Your task to perform on an android device: What's on my calendar today? Image 0: 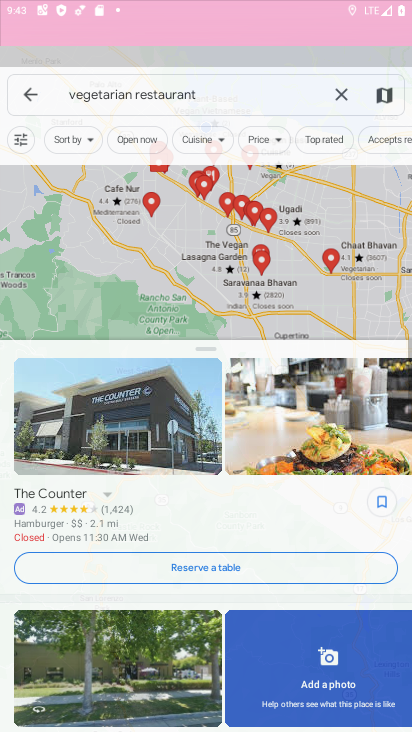
Step 0: press home button
Your task to perform on an android device: What's on my calendar today? Image 1: 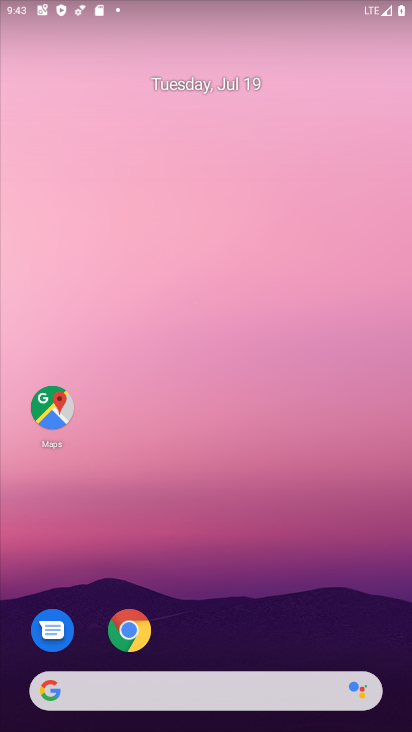
Step 1: drag from (212, 687) to (212, 324)
Your task to perform on an android device: What's on my calendar today? Image 2: 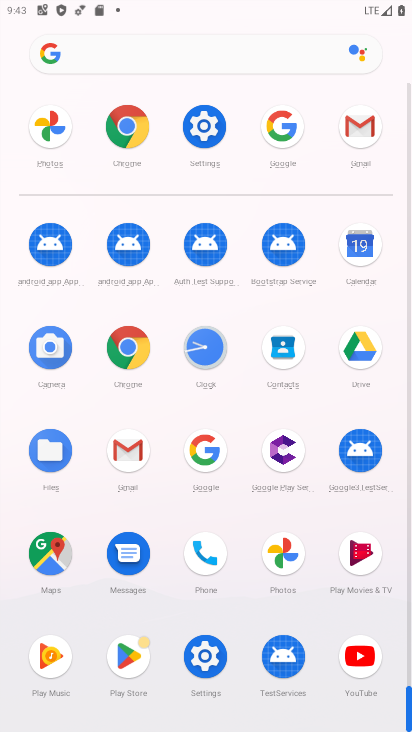
Step 2: click (370, 262)
Your task to perform on an android device: What's on my calendar today? Image 3: 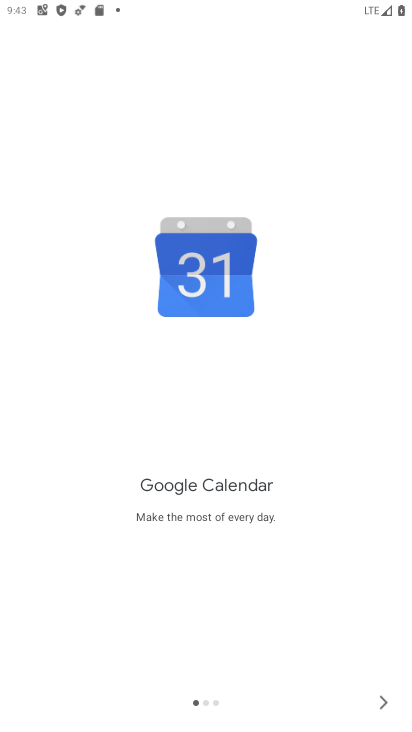
Step 3: click (391, 698)
Your task to perform on an android device: What's on my calendar today? Image 4: 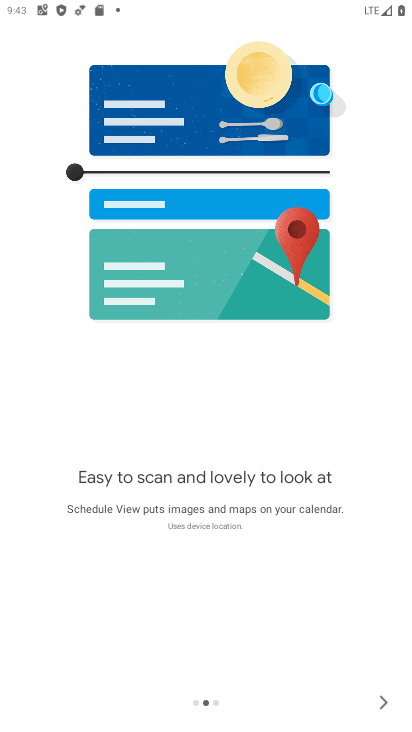
Step 4: click (377, 712)
Your task to perform on an android device: What's on my calendar today? Image 5: 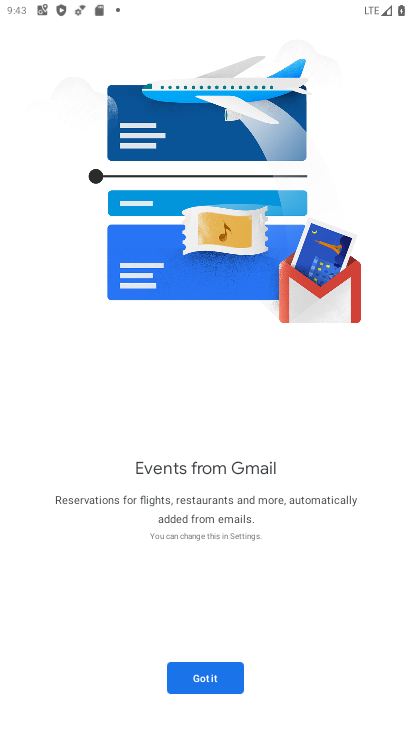
Step 5: click (196, 684)
Your task to perform on an android device: What's on my calendar today? Image 6: 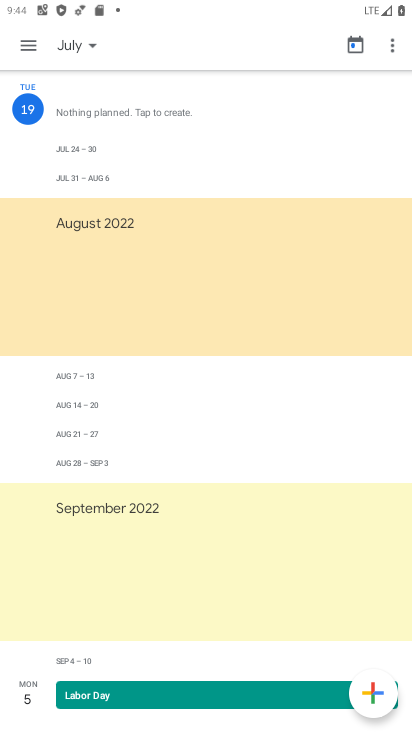
Step 6: click (89, 46)
Your task to perform on an android device: What's on my calendar today? Image 7: 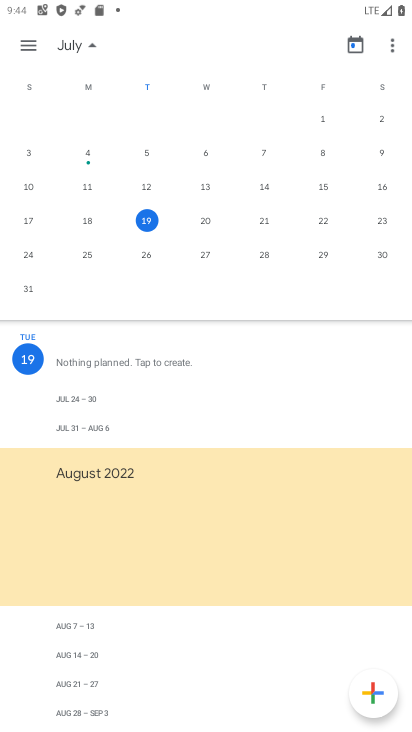
Step 7: task complete